Your task to perform on an android device: uninstall "Viber Messenger" Image 0: 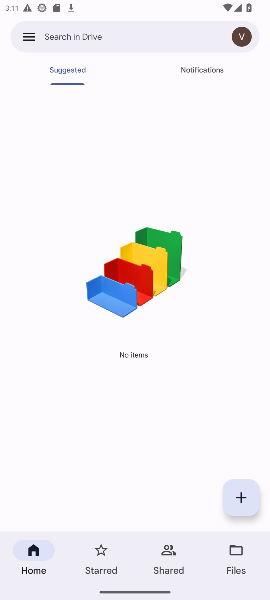
Step 0: press home button
Your task to perform on an android device: uninstall "Viber Messenger" Image 1: 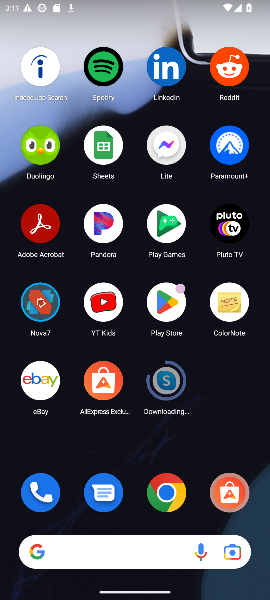
Step 1: click (175, 311)
Your task to perform on an android device: uninstall "Viber Messenger" Image 2: 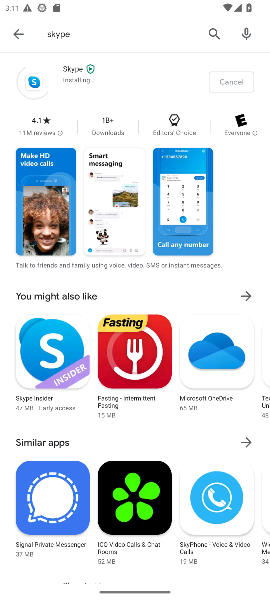
Step 2: click (214, 35)
Your task to perform on an android device: uninstall "Viber Messenger" Image 3: 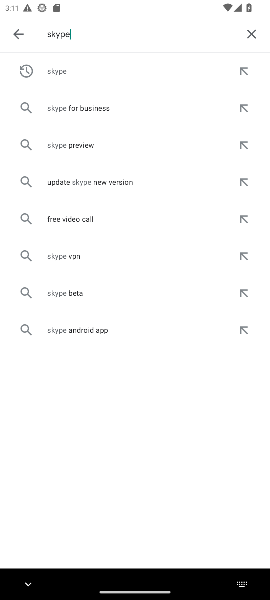
Step 3: click (252, 46)
Your task to perform on an android device: uninstall "Viber Messenger" Image 4: 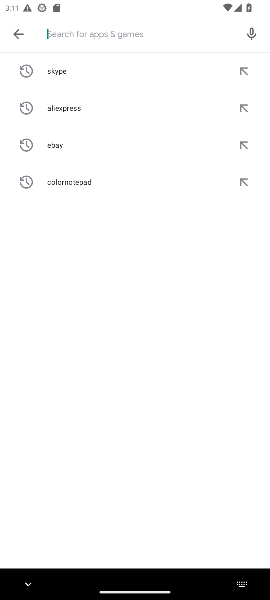
Step 4: type "viber"
Your task to perform on an android device: uninstall "Viber Messenger" Image 5: 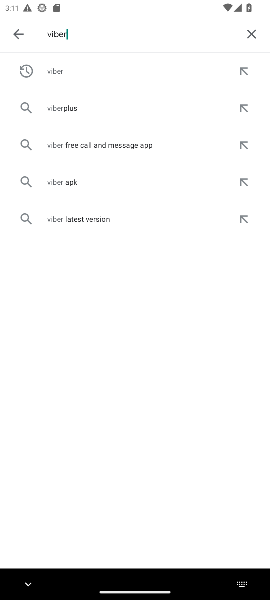
Step 5: click (75, 64)
Your task to perform on an android device: uninstall "Viber Messenger" Image 6: 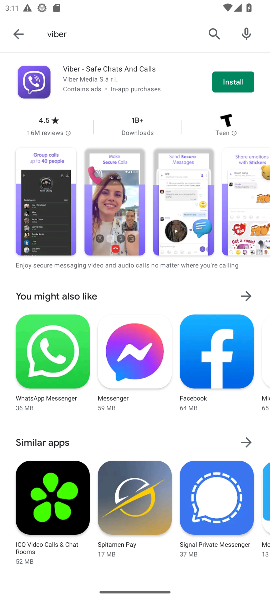
Step 6: click (228, 88)
Your task to perform on an android device: uninstall "Viber Messenger" Image 7: 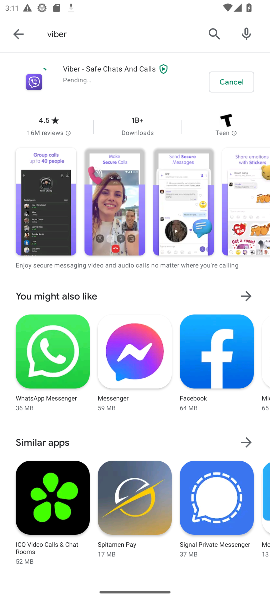
Step 7: task complete